Your task to perform on an android device: Open the calendar and show me this week's events? Image 0: 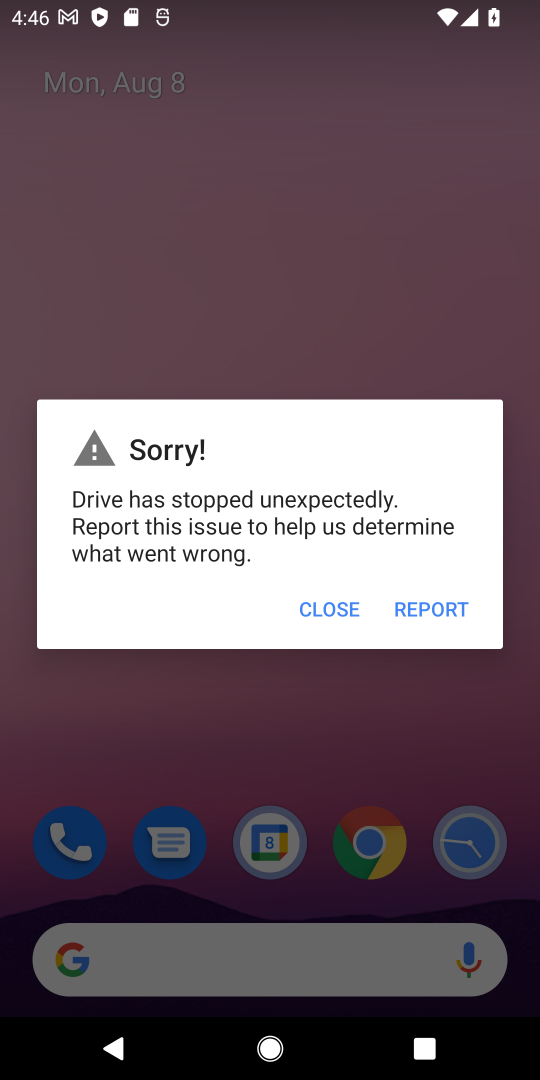
Step 0: click (333, 612)
Your task to perform on an android device: Open the calendar and show me this week's events? Image 1: 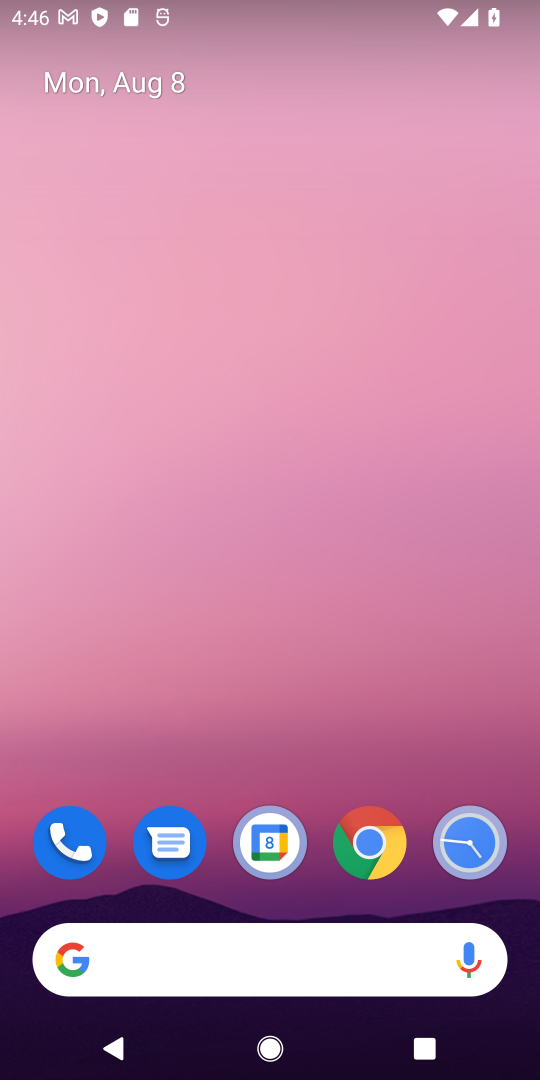
Step 1: drag from (362, 777) to (330, 133)
Your task to perform on an android device: Open the calendar and show me this week's events? Image 2: 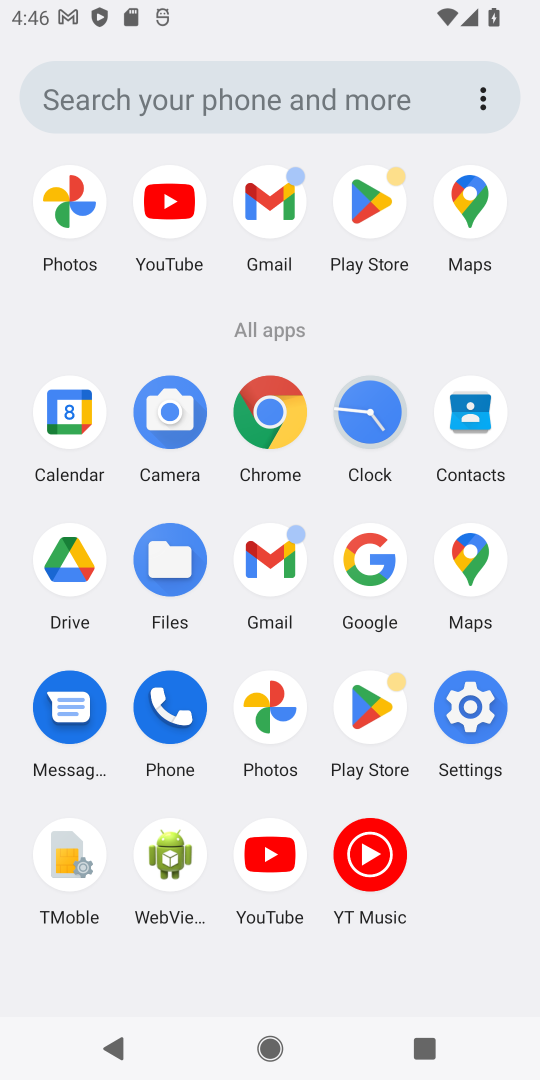
Step 2: click (71, 417)
Your task to perform on an android device: Open the calendar and show me this week's events? Image 3: 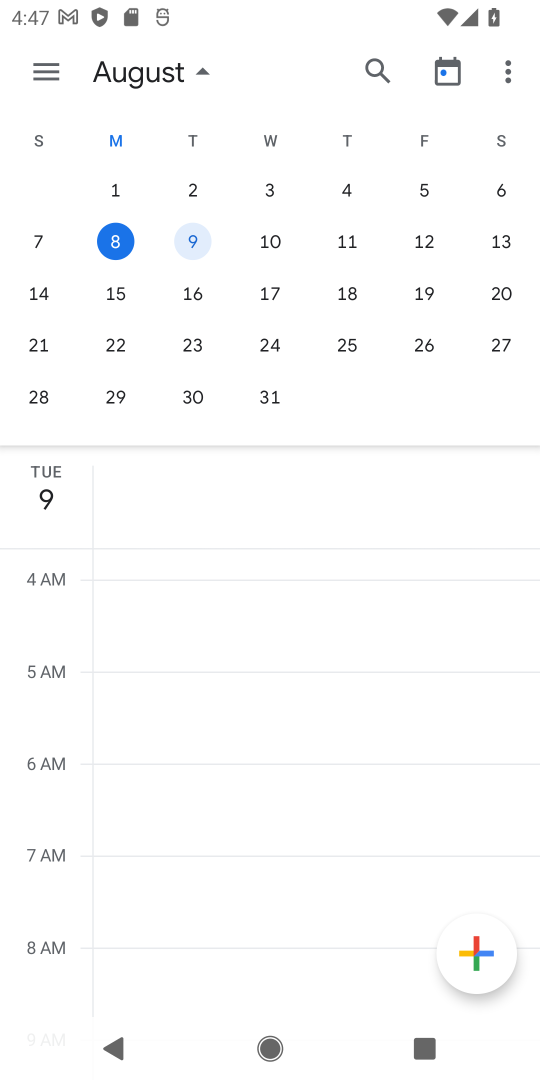
Step 3: click (29, 64)
Your task to perform on an android device: Open the calendar and show me this week's events? Image 4: 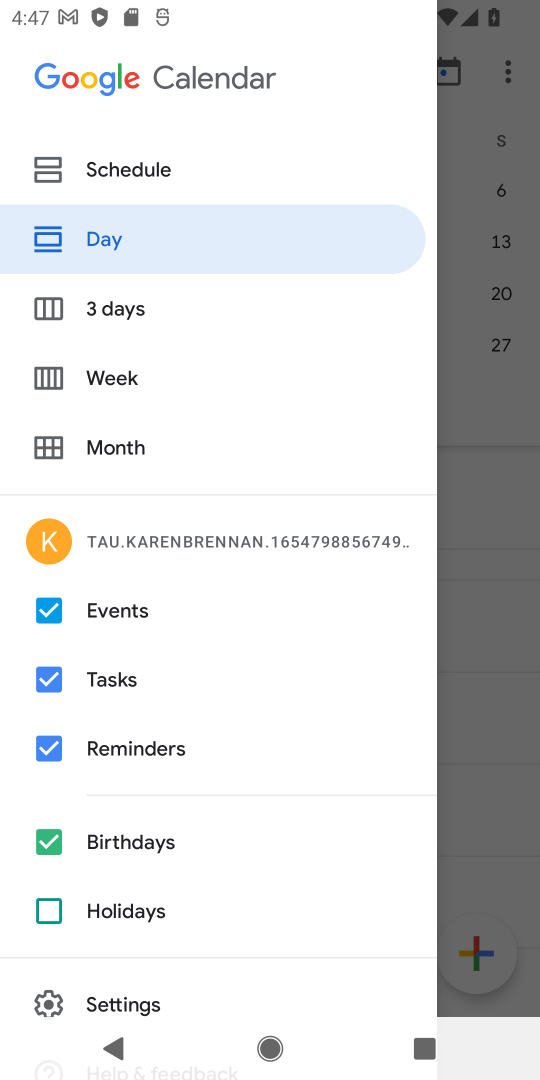
Step 4: click (165, 377)
Your task to perform on an android device: Open the calendar and show me this week's events? Image 5: 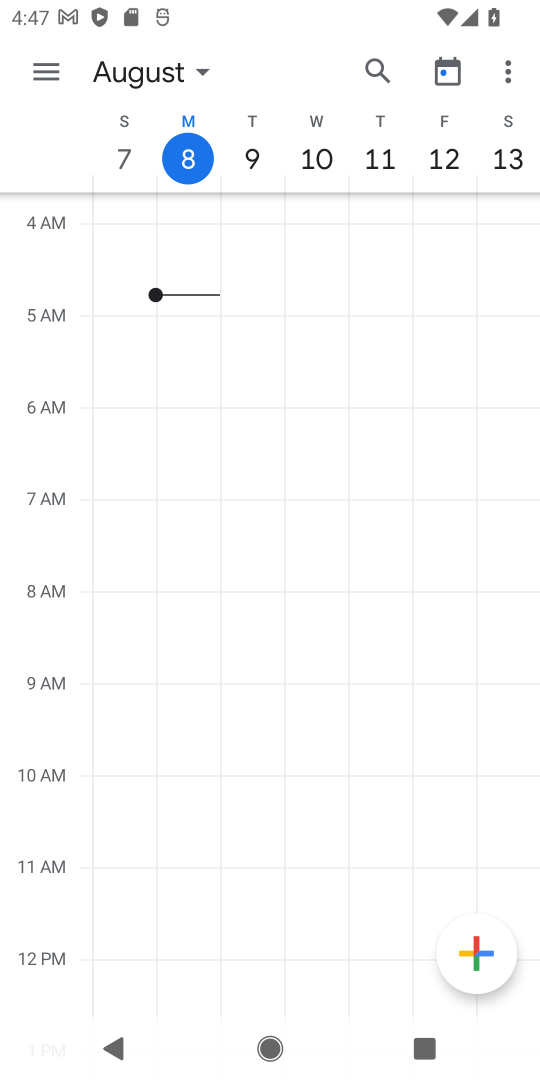
Step 5: task complete